Your task to perform on an android device: check data usage Image 0: 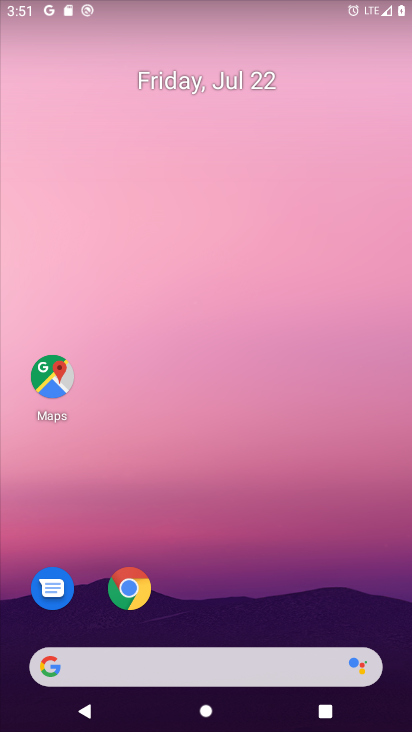
Step 0: drag from (240, 584) to (194, 89)
Your task to perform on an android device: check data usage Image 1: 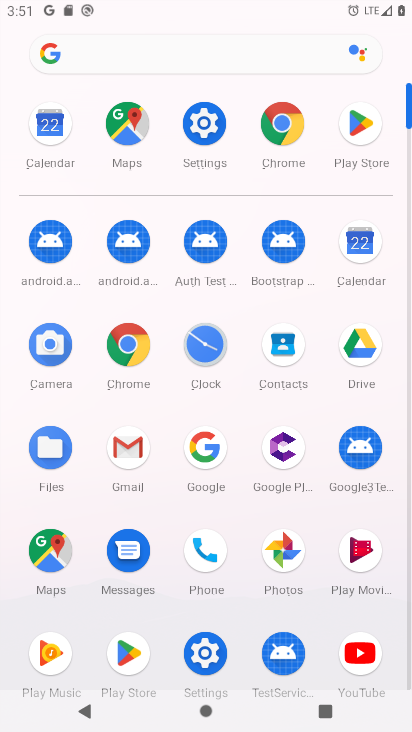
Step 1: drag from (245, 7) to (220, 504)
Your task to perform on an android device: check data usage Image 2: 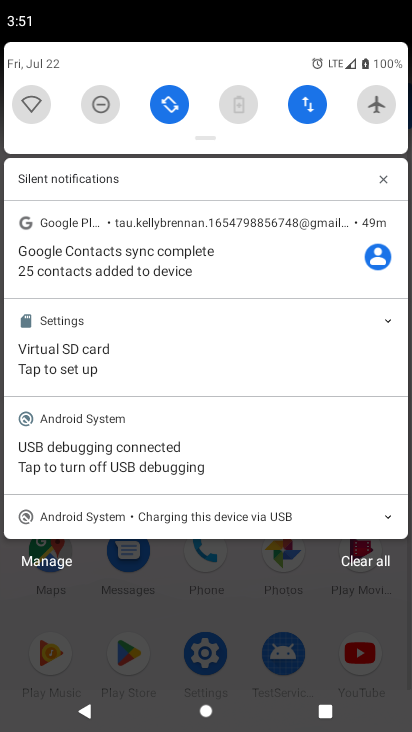
Step 2: click (320, 90)
Your task to perform on an android device: check data usage Image 3: 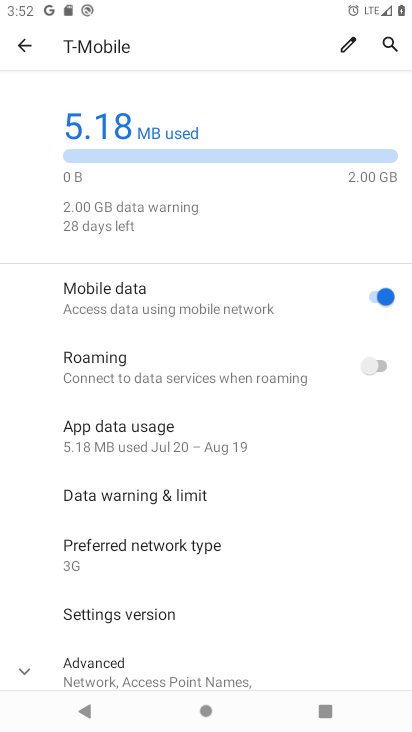
Step 3: task complete